Your task to perform on an android device: Open Youtube and go to the subscriptions tab Image 0: 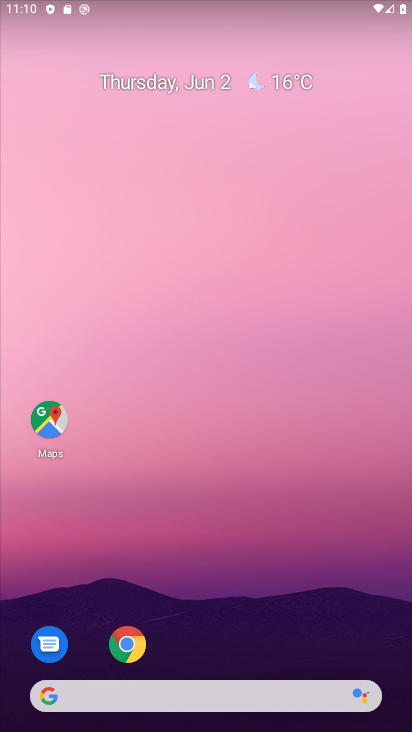
Step 0: drag from (217, 576) to (345, 180)
Your task to perform on an android device: Open Youtube and go to the subscriptions tab Image 1: 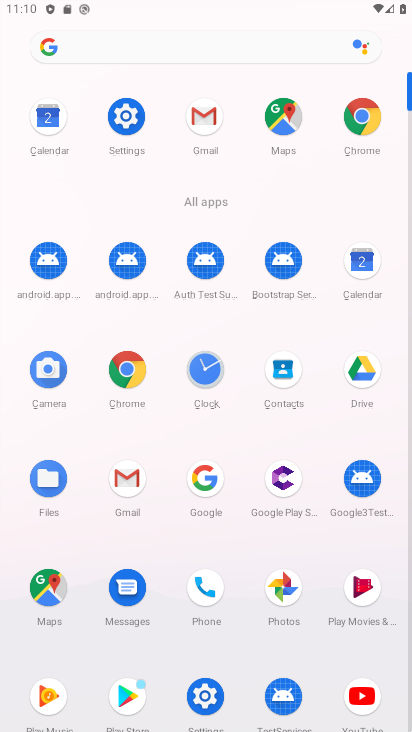
Step 1: click (373, 700)
Your task to perform on an android device: Open Youtube and go to the subscriptions tab Image 2: 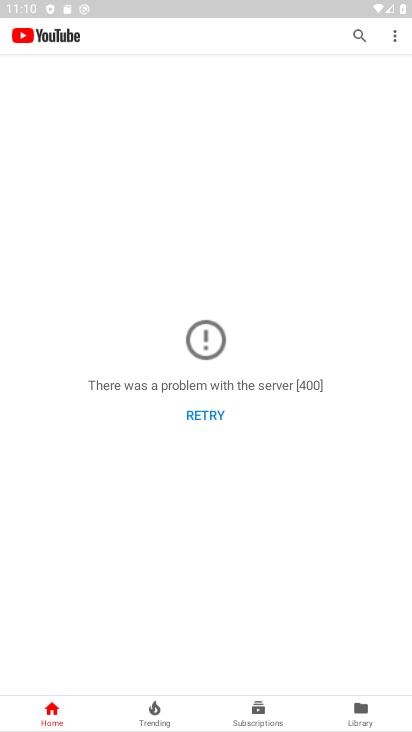
Step 2: click (195, 704)
Your task to perform on an android device: Open Youtube and go to the subscriptions tab Image 3: 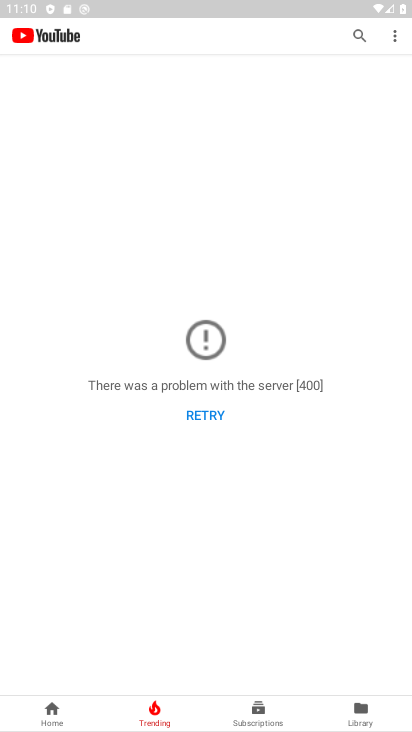
Step 3: click (265, 715)
Your task to perform on an android device: Open Youtube and go to the subscriptions tab Image 4: 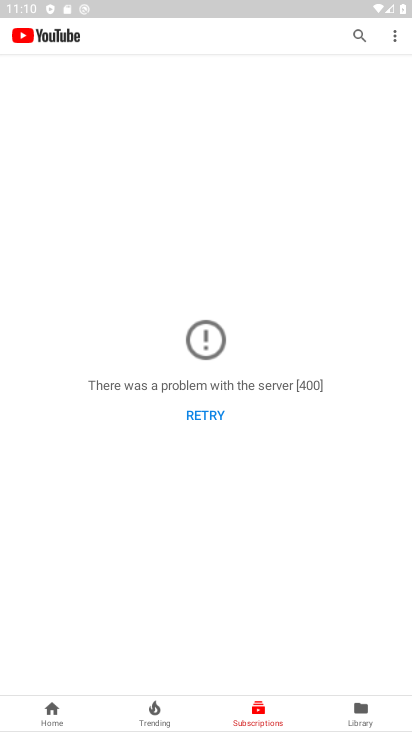
Step 4: task complete